Your task to perform on an android device: Open privacy settings Image 0: 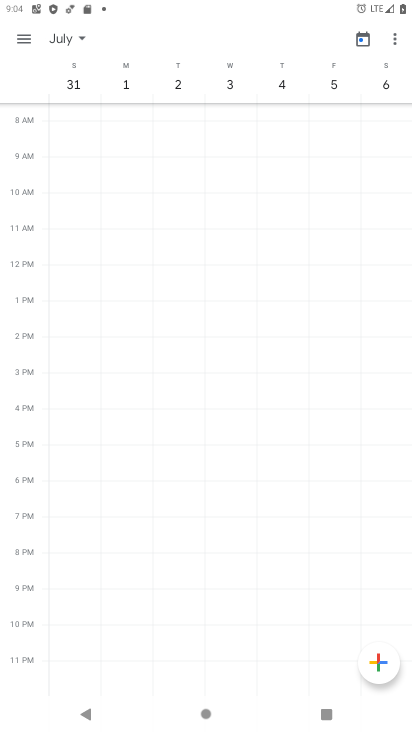
Step 0: press home button
Your task to perform on an android device: Open privacy settings Image 1: 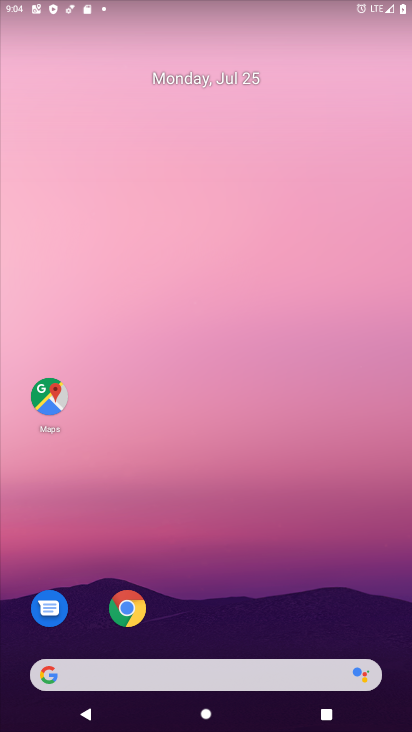
Step 1: drag from (225, 729) to (223, 110)
Your task to perform on an android device: Open privacy settings Image 2: 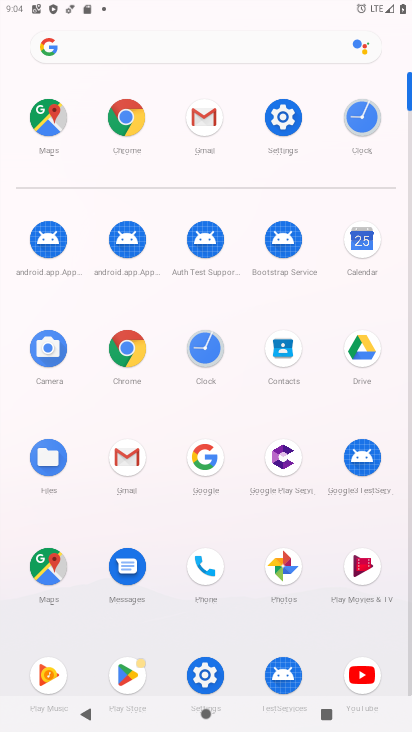
Step 2: click (287, 108)
Your task to perform on an android device: Open privacy settings Image 3: 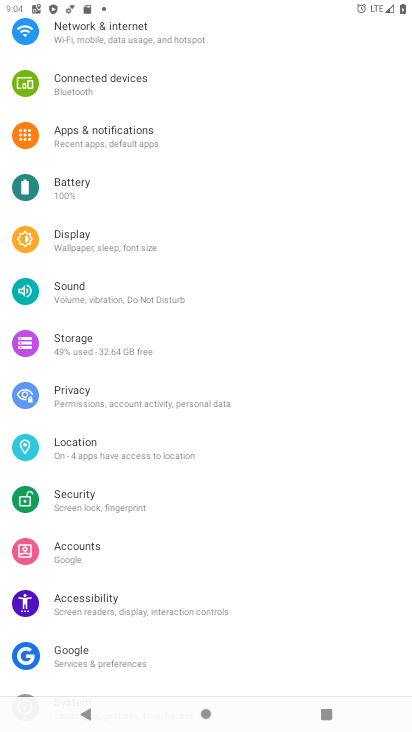
Step 3: click (72, 396)
Your task to perform on an android device: Open privacy settings Image 4: 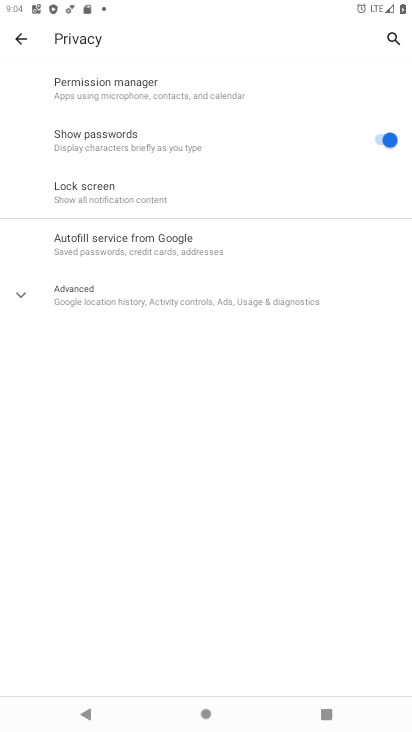
Step 4: task complete